Your task to perform on an android device: see tabs open on other devices in the chrome app Image 0: 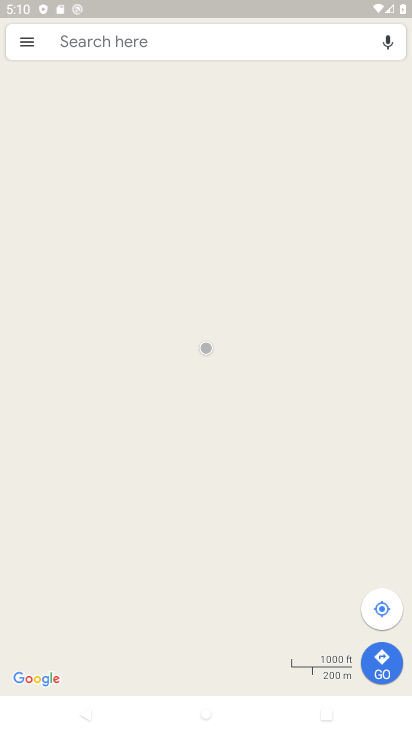
Step 0: press home button
Your task to perform on an android device: see tabs open on other devices in the chrome app Image 1: 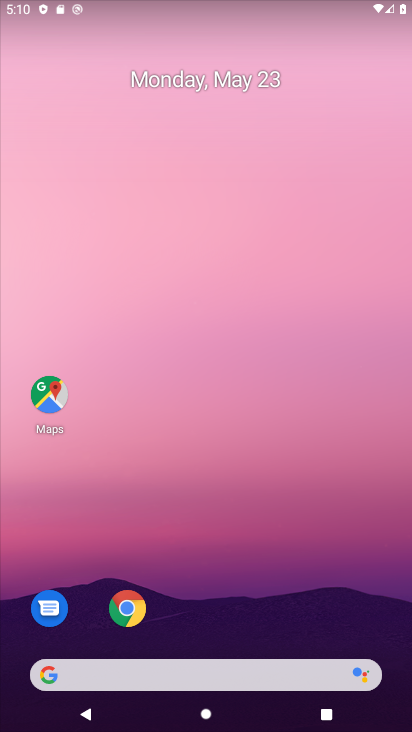
Step 1: drag from (151, 239) to (228, 67)
Your task to perform on an android device: see tabs open on other devices in the chrome app Image 2: 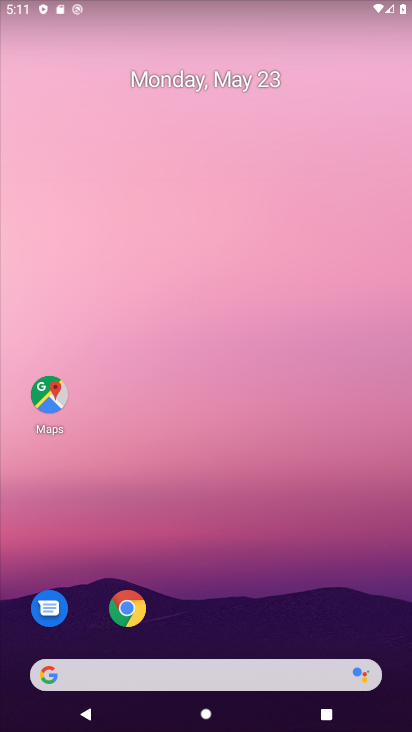
Step 2: click (139, 604)
Your task to perform on an android device: see tabs open on other devices in the chrome app Image 3: 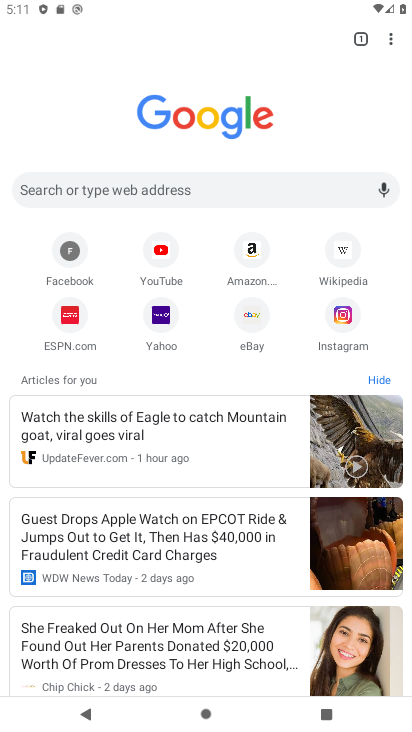
Step 3: task complete